Your task to perform on an android device: empty trash in the gmail app Image 0: 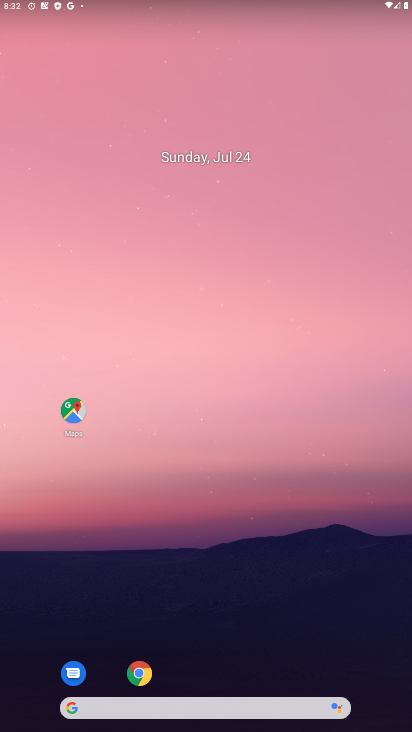
Step 0: click (67, 176)
Your task to perform on an android device: empty trash in the gmail app Image 1: 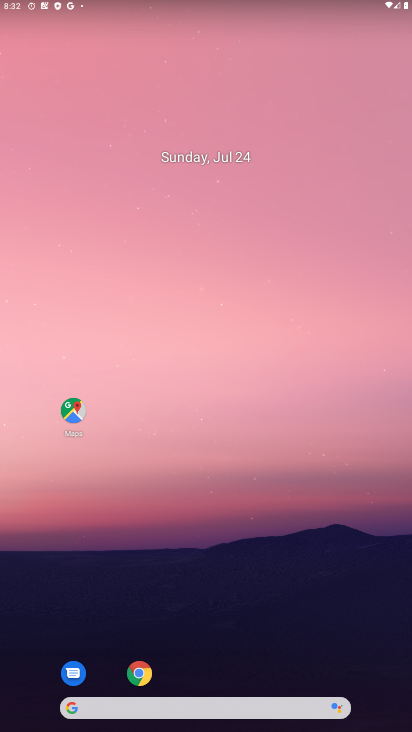
Step 1: drag from (168, 104) to (212, 22)
Your task to perform on an android device: empty trash in the gmail app Image 2: 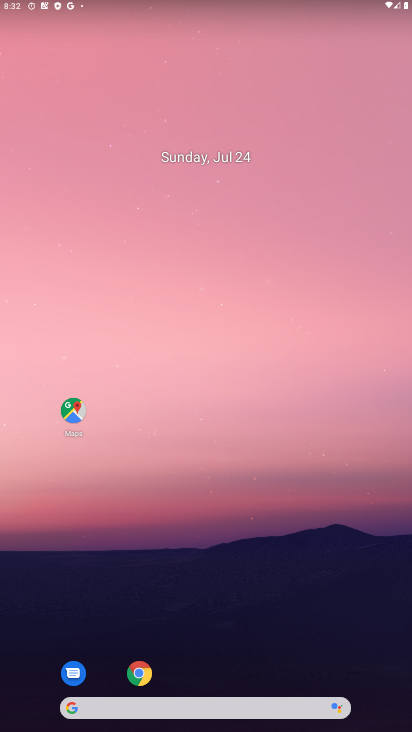
Step 2: drag from (193, 651) to (129, 100)
Your task to perform on an android device: empty trash in the gmail app Image 3: 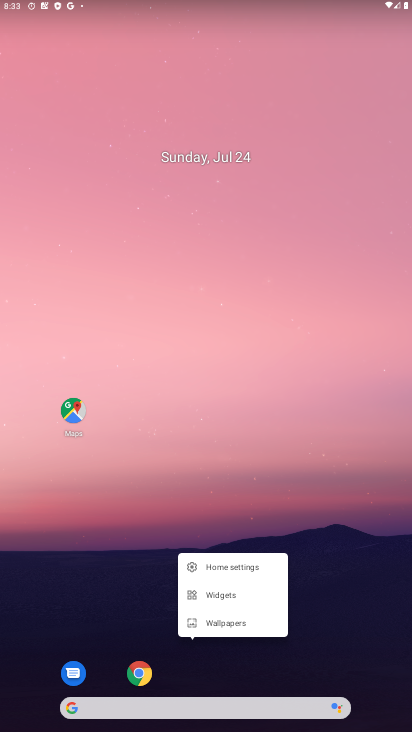
Step 3: drag from (42, 723) to (55, 26)
Your task to perform on an android device: empty trash in the gmail app Image 4: 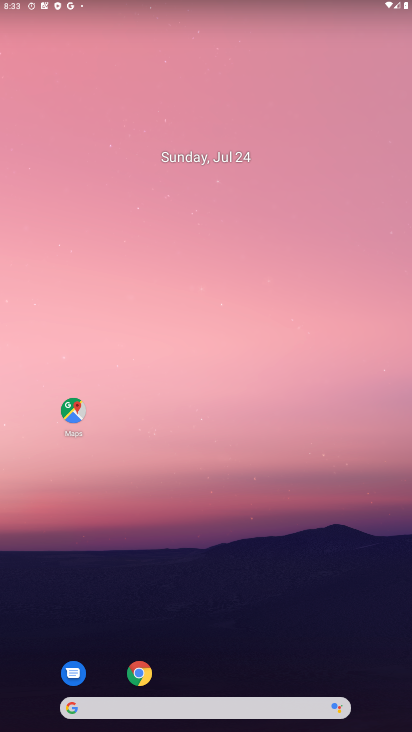
Step 4: drag from (21, 643) to (228, 0)
Your task to perform on an android device: empty trash in the gmail app Image 5: 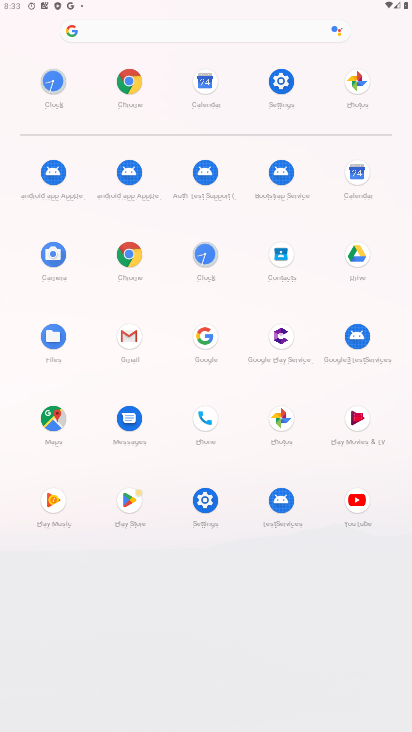
Step 5: click (111, 332)
Your task to perform on an android device: empty trash in the gmail app Image 6: 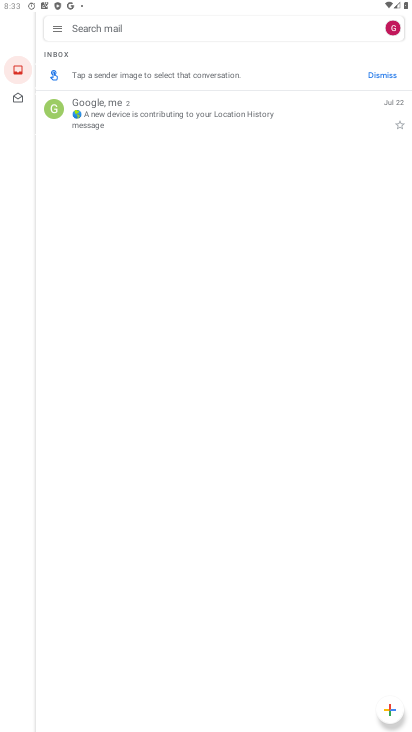
Step 6: click (58, 27)
Your task to perform on an android device: empty trash in the gmail app Image 7: 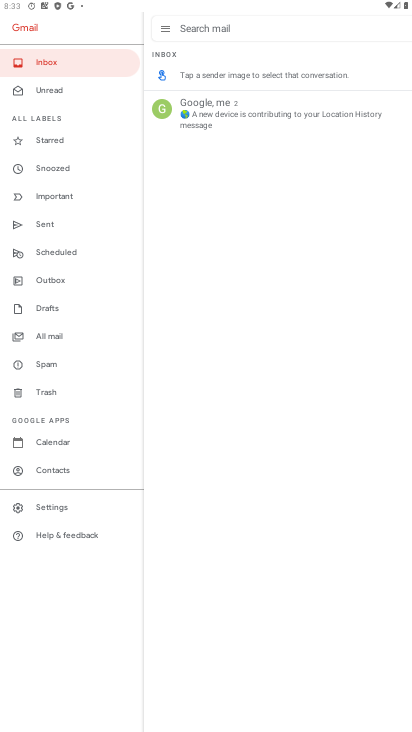
Step 7: click (47, 386)
Your task to perform on an android device: empty trash in the gmail app Image 8: 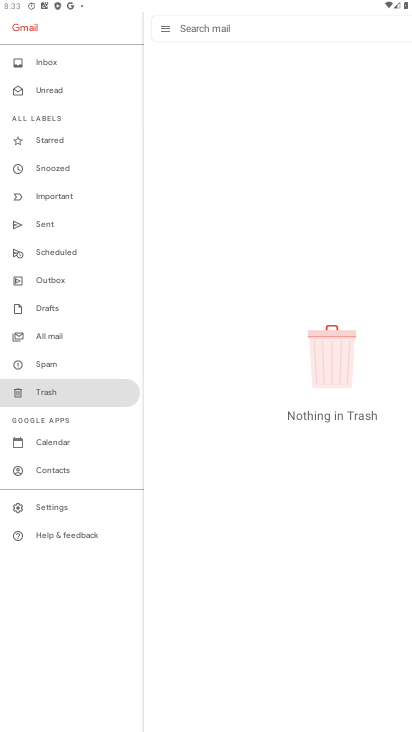
Step 8: task complete